Your task to perform on an android device: snooze an email in the gmail app Image 0: 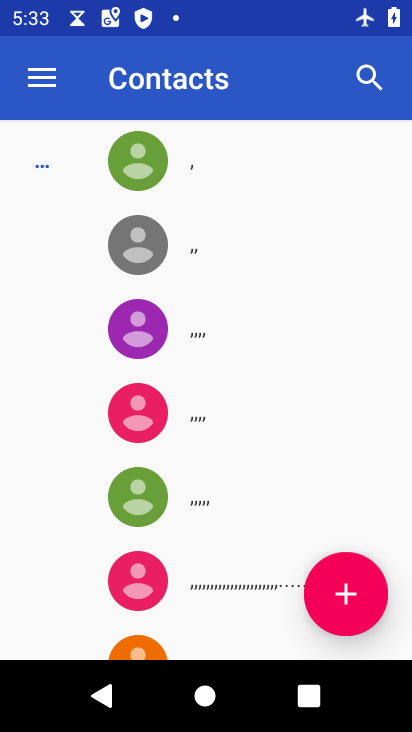
Step 0: press back button
Your task to perform on an android device: snooze an email in the gmail app Image 1: 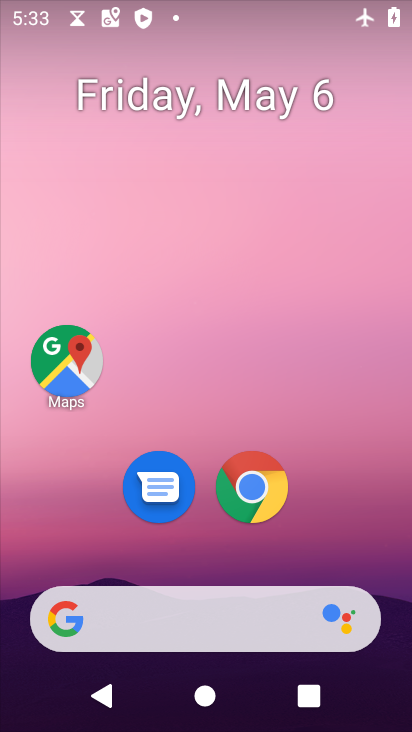
Step 1: drag from (327, 532) to (309, 19)
Your task to perform on an android device: snooze an email in the gmail app Image 2: 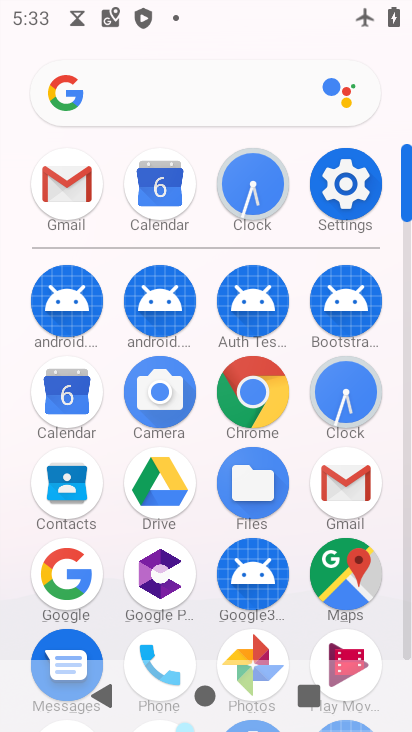
Step 2: click (67, 180)
Your task to perform on an android device: snooze an email in the gmail app Image 3: 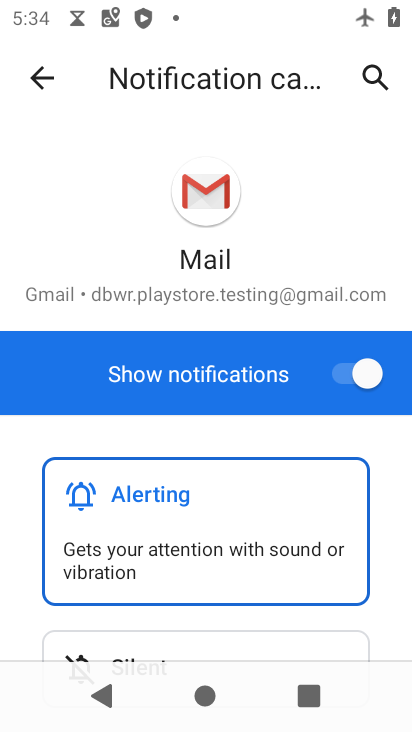
Step 3: press back button
Your task to perform on an android device: snooze an email in the gmail app Image 4: 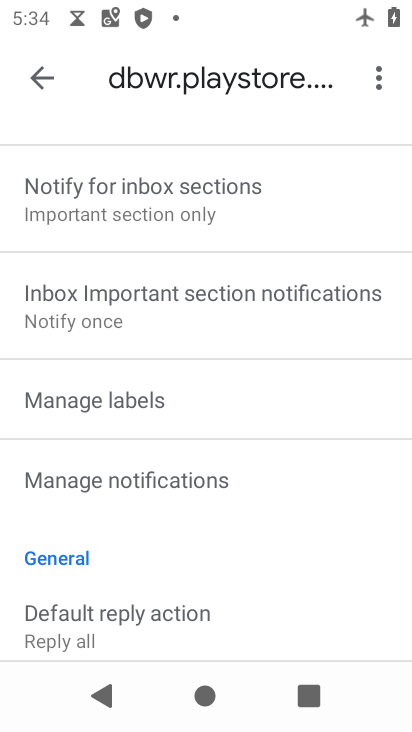
Step 4: press back button
Your task to perform on an android device: snooze an email in the gmail app Image 5: 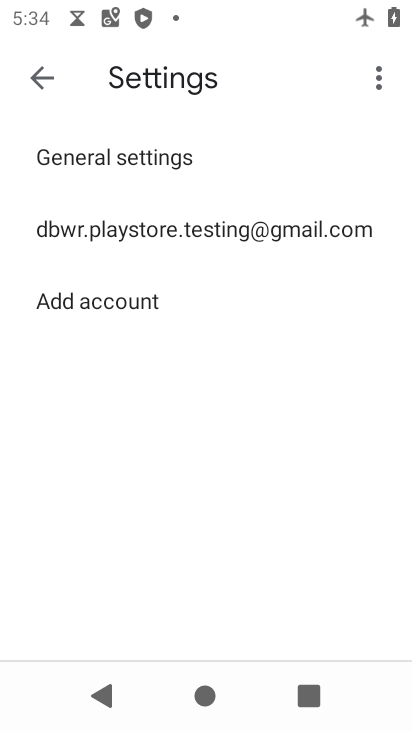
Step 5: press back button
Your task to perform on an android device: snooze an email in the gmail app Image 6: 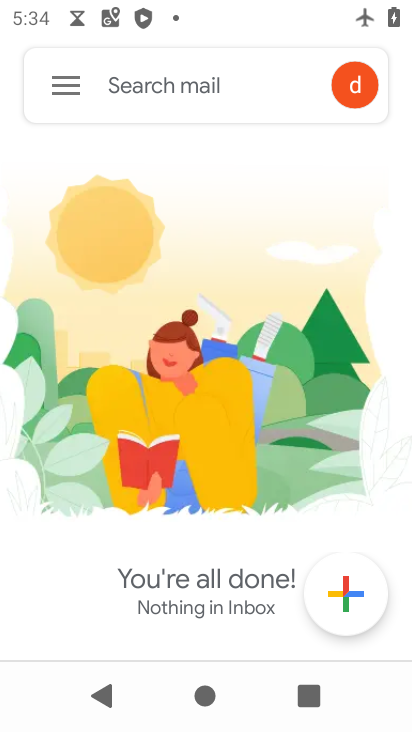
Step 6: click (64, 86)
Your task to perform on an android device: snooze an email in the gmail app Image 7: 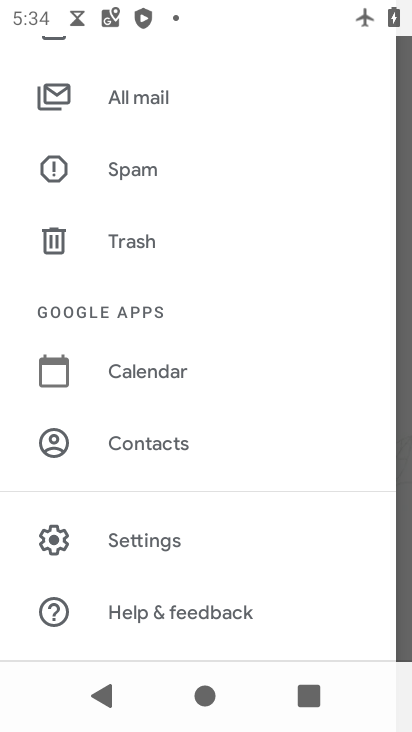
Step 7: click (124, 101)
Your task to perform on an android device: snooze an email in the gmail app Image 8: 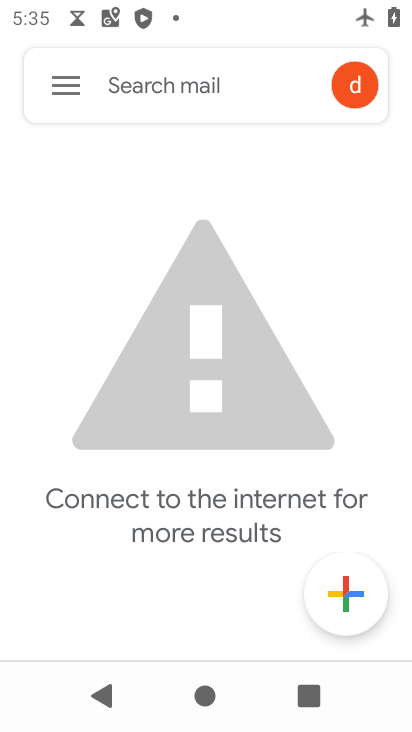
Step 8: task complete